Your task to perform on an android device: stop showing notifications on the lock screen Image 0: 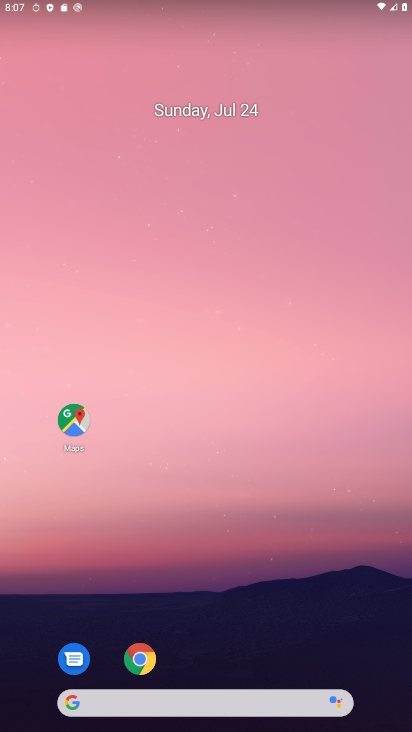
Step 0: click (411, 532)
Your task to perform on an android device: stop showing notifications on the lock screen Image 1: 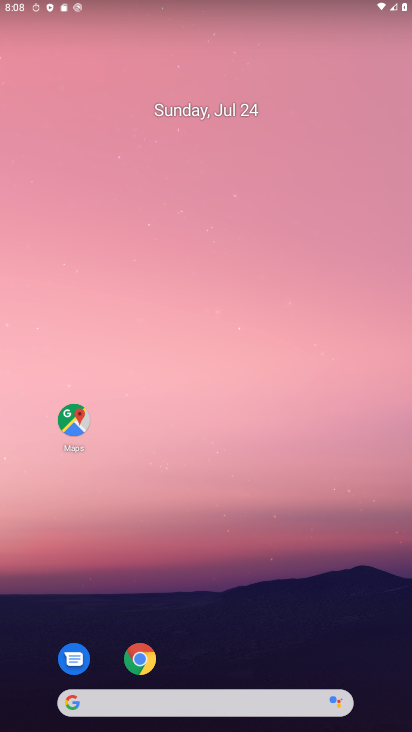
Step 1: drag from (186, 724) to (324, 5)
Your task to perform on an android device: stop showing notifications on the lock screen Image 2: 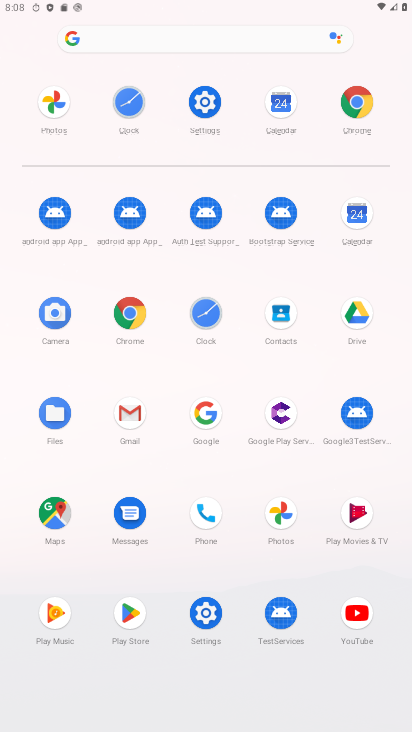
Step 2: drag from (294, 423) to (265, 307)
Your task to perform on an android device: stop showing notifications on the lock screen Image 3: 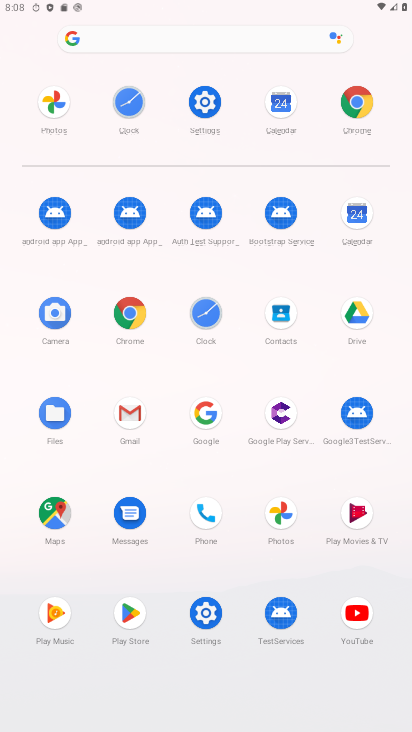
Step 3: click (208, 312)
Your task to perform on an android device: stop showing notifications on the lock screen Image 4: 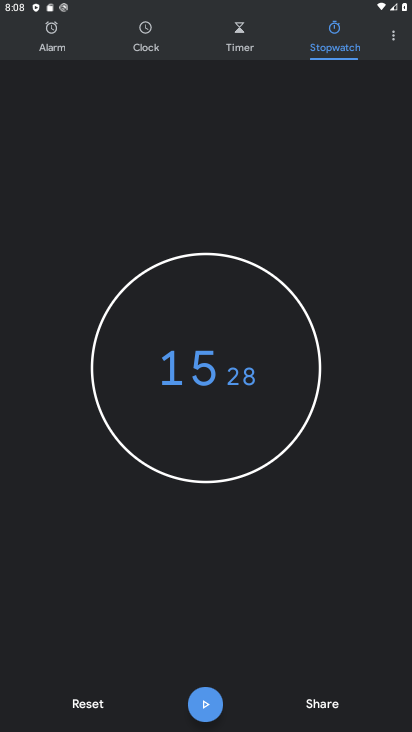
Step 4: press back button
Your task to perform on an android device: stop showing notifications on the lock screen Image 5: 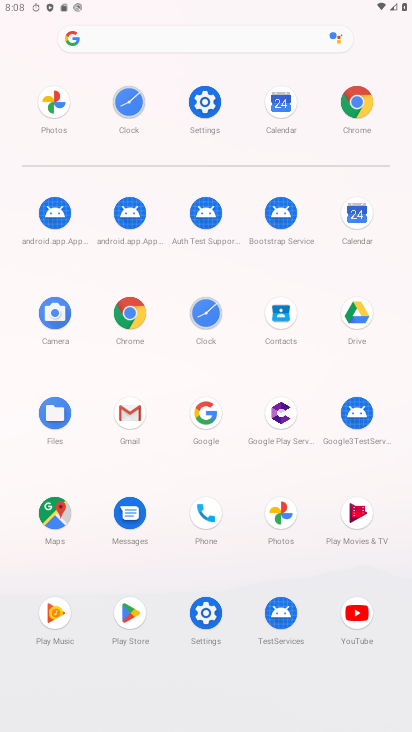
Step 5: click (200, 626)
Your task to perform on an android device: stop showing notifications on the lock screen Image 6: 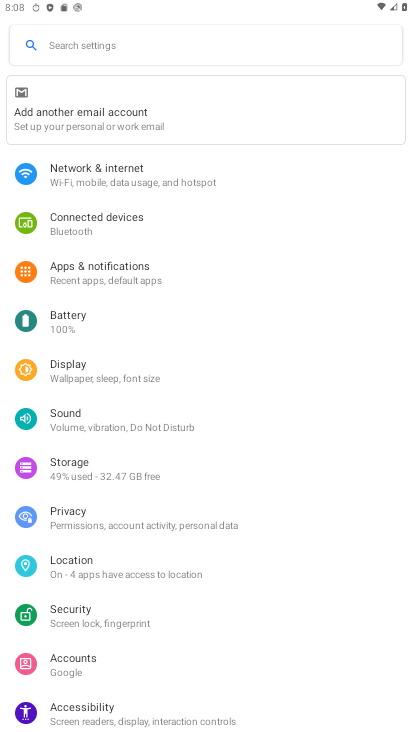
Step 6: click (72, 282)
Your task to perform on an android device: stop showing notifications on the lock screen Image 7: 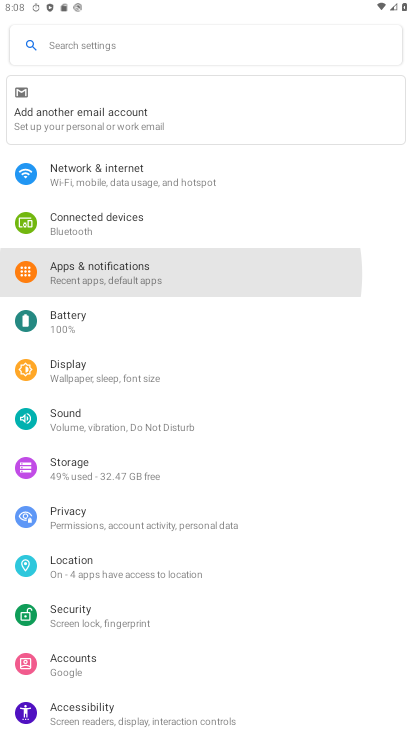
Step 7: click (72, 277)
Your task to perform on an android device: stop showing notifications on the lock screen Image 8: 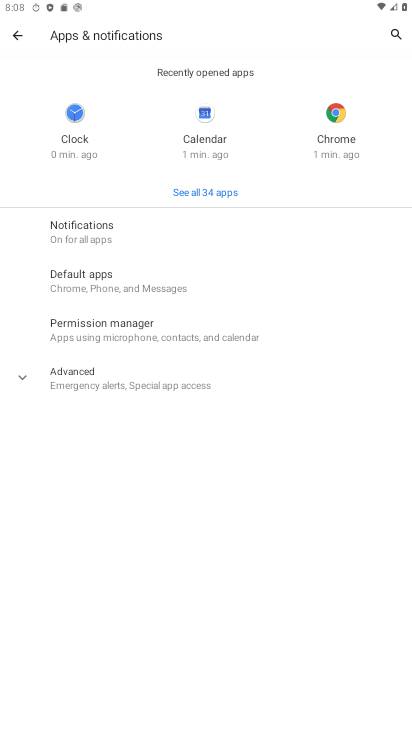
Step 8: click (80, 219)
Your task to perform on an android device: stop showing notifications on the lock screen Image 9: 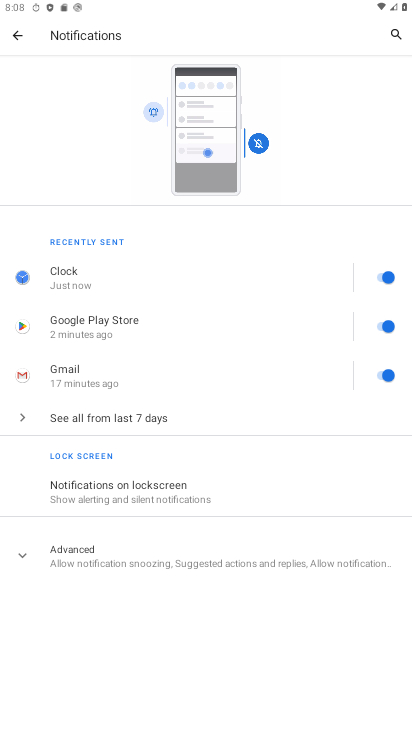
Step 9: click (102, 483)
Your task to perform on an android device: stop showing notifications on the lock screen Image 10: 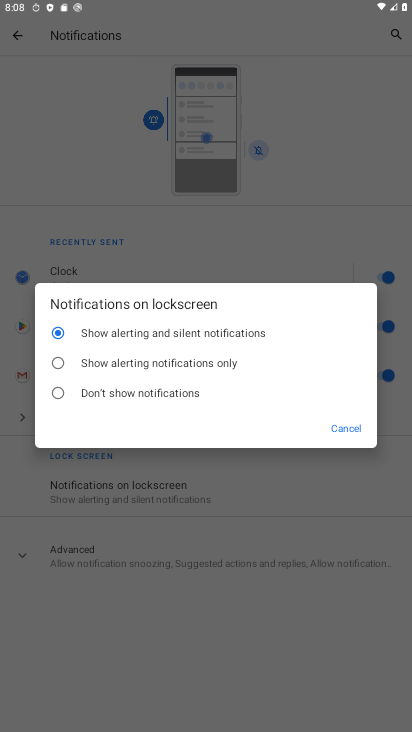
Step 10: click (56, 391)
Your task to perform on an android device: stop showing notifications on the lock screen Image 11: 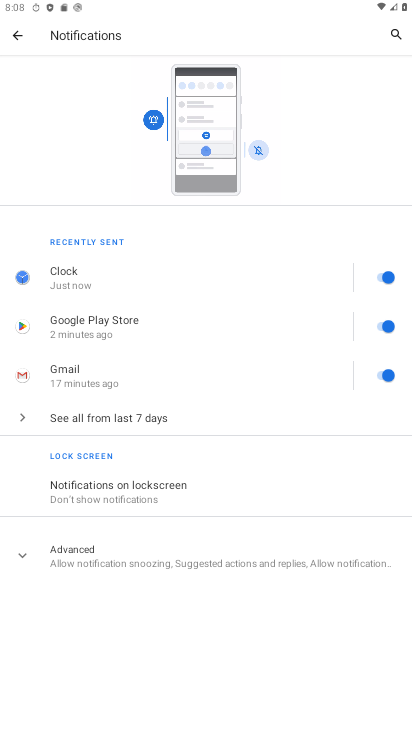
Step 11: task complete